Your task to perform on an android device: toggle sleep mode Image 0: 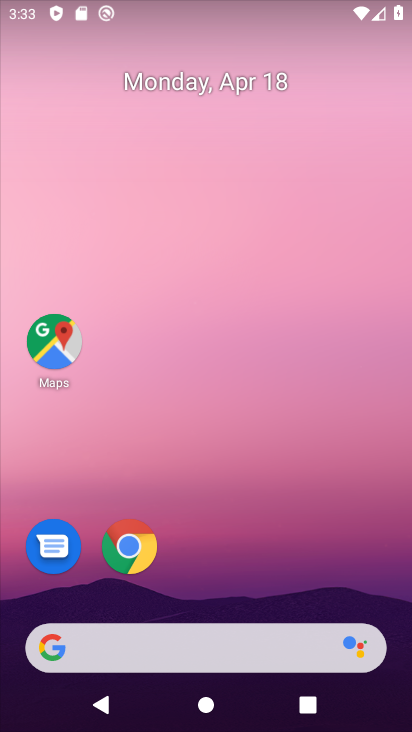
Step 0: drag from (241, 545) to (312, 157)
Your task to perform on an android device: toggle sleep mode Image 1: 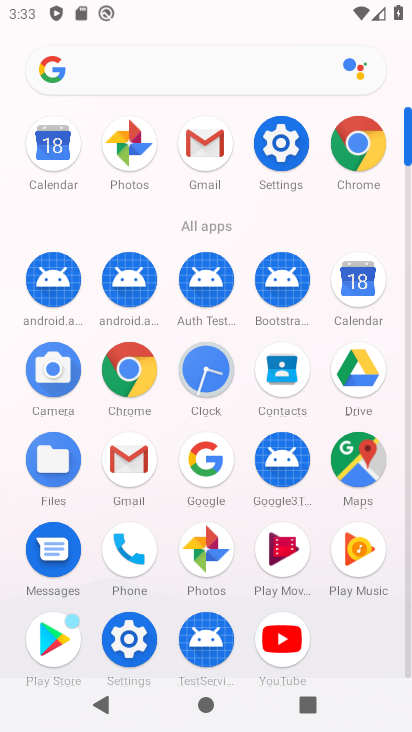
Step 1: click (289, 138)
Your task to perform on an android device: toggle sleep mode Image 2: 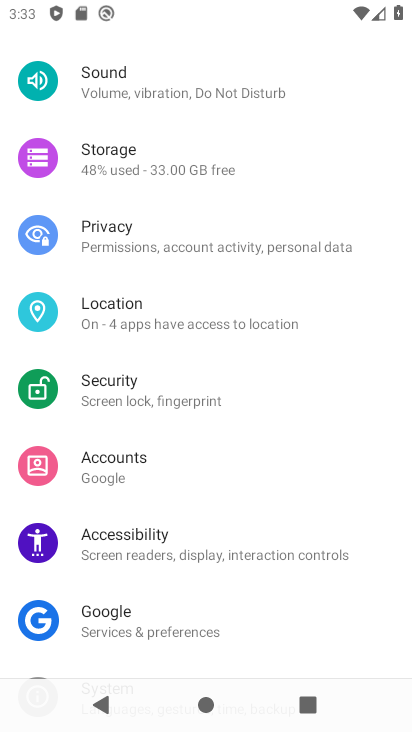
Step 2: drag from (211, 122) to (202, 623)
Your task to perform on an android device: toggle sleep mode Image 3: 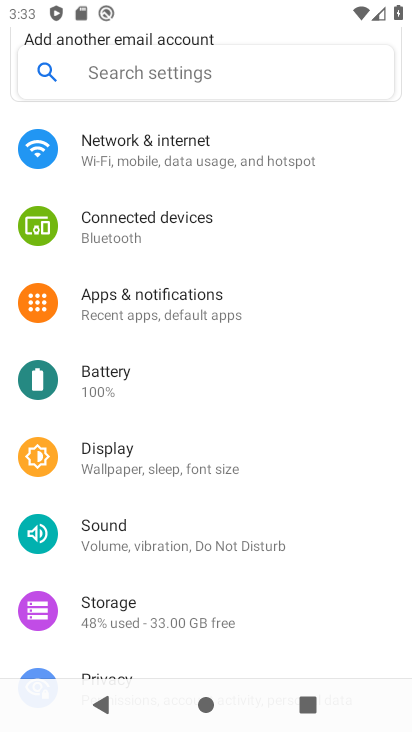
Step 3: drag from (235, 117) to (234, 533)
Your task to perform on an android device: toggle sleep mode Image 4: 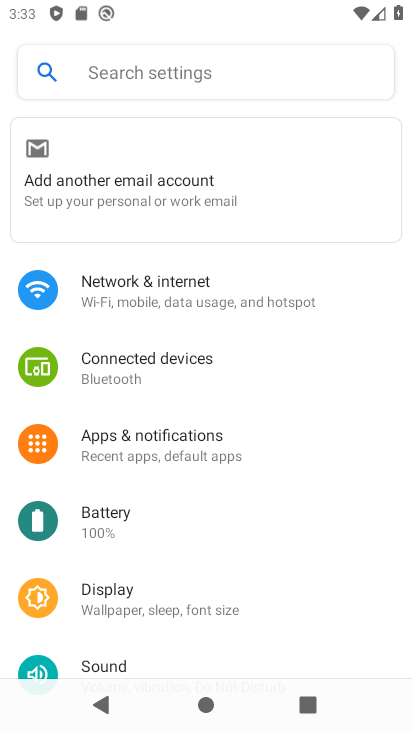
Step 4: click (156, 598)
Your task to perform on an android device: toggle sleep mode Image 5: 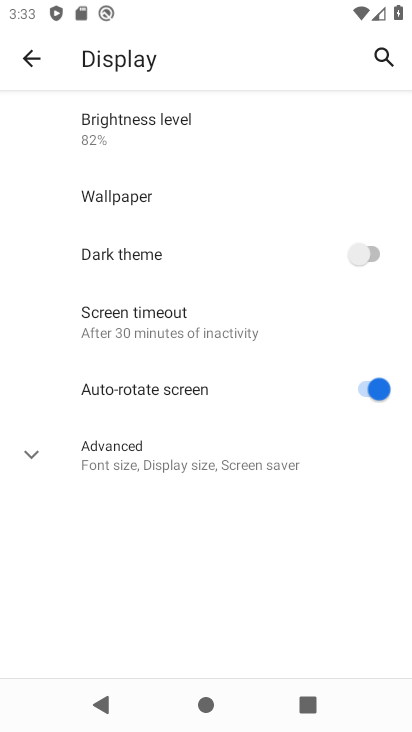
Step 5: click (190, 324)
Your task to perform on an android device: toggle sleep mode Image 6: 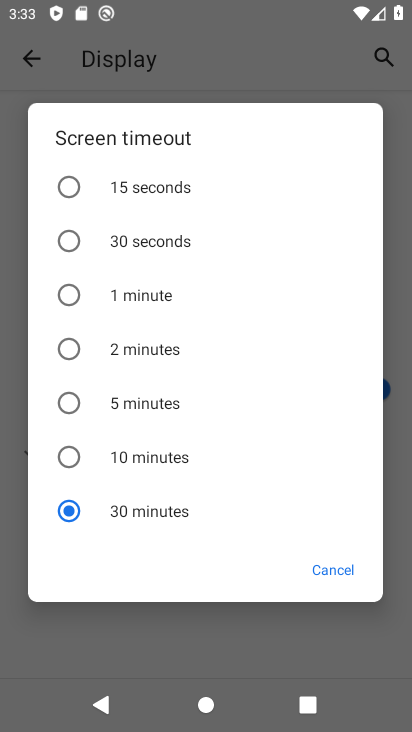
Step 6: click (132, 461)
Your task to perform on an android device: toggle sleep mode Image 7: 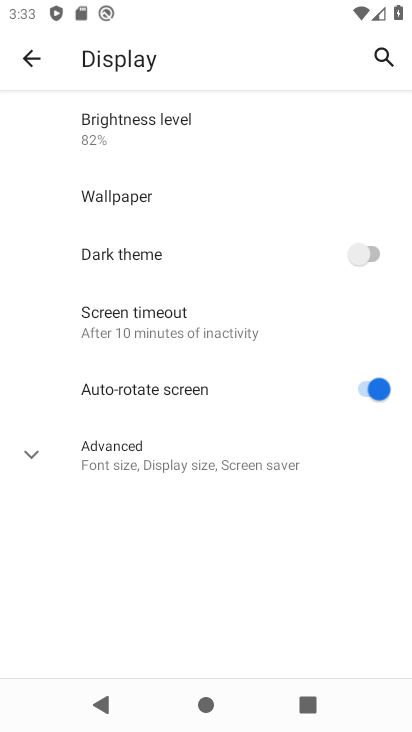
Step 7: task complete